Your task to perform on an android device: Open Yahoo.com Image 0: 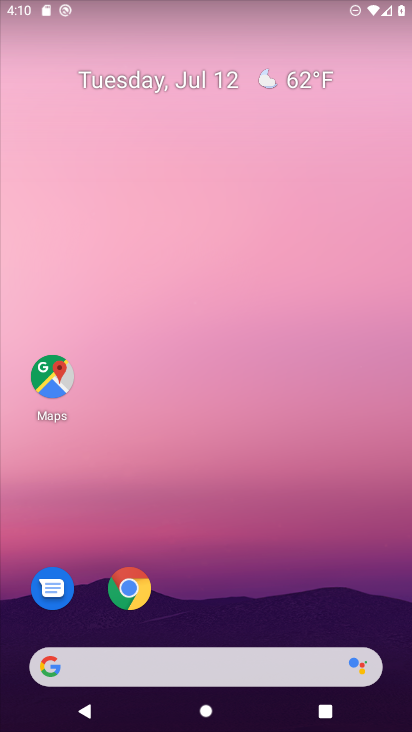
Step 0: click (343, 391)
Your task to perform on an android device: Open Yahoo.com Image 1: 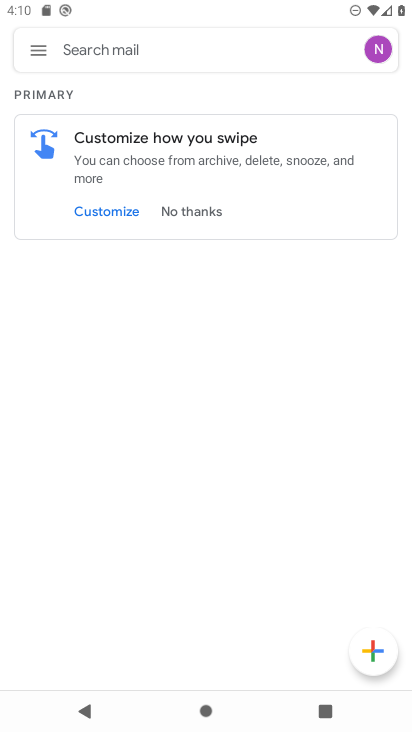
Step 1: press home button
Your task to perform on an android device: Open Yahoo.com Image 2: 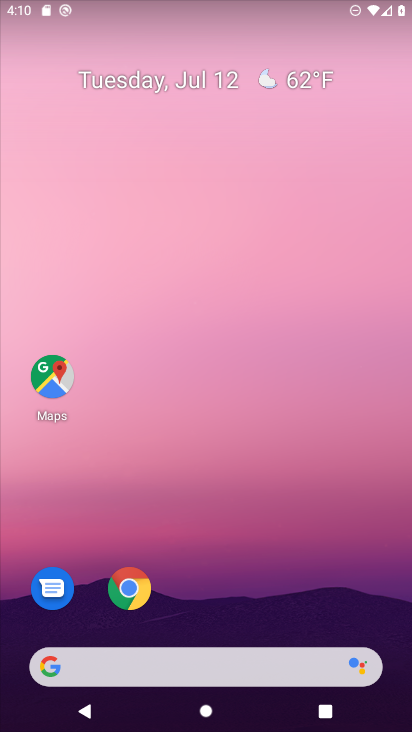
Step 2: click (136, 598)
Your task to perform on an android device: Open Yahoo.com Image 3: 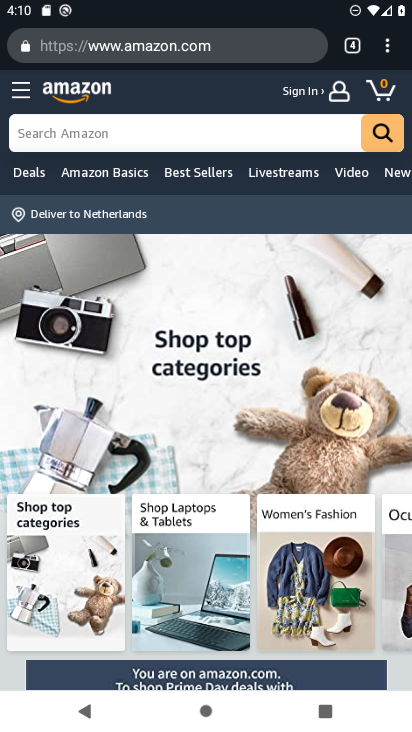
Step 3: click (227, 49)
Your task to perform on an android device: Open Yahoo.com Image 4: 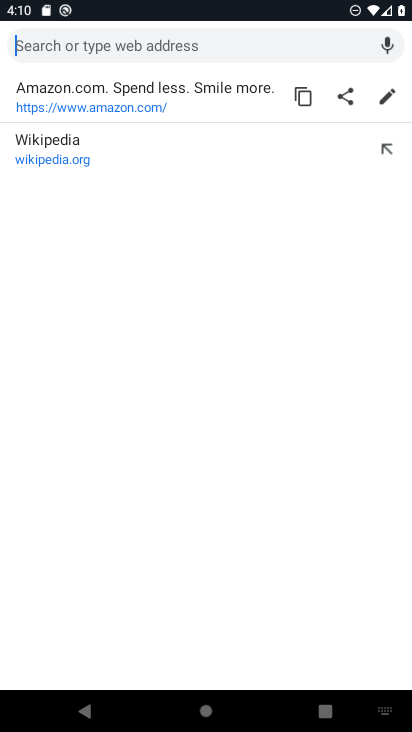
Step 4: type "yahoo.com"
Your task to perform on an android device: Open Yahoo.com Image 5: 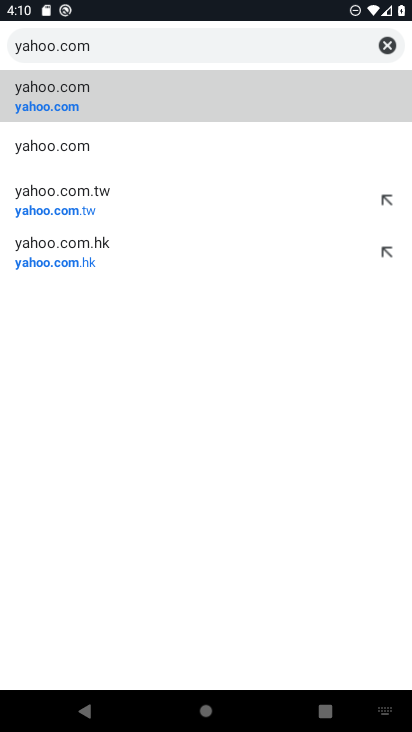
Step 5: click (111, 95)
Your task to perform on an android device: Open Yahoo.com Image 6: 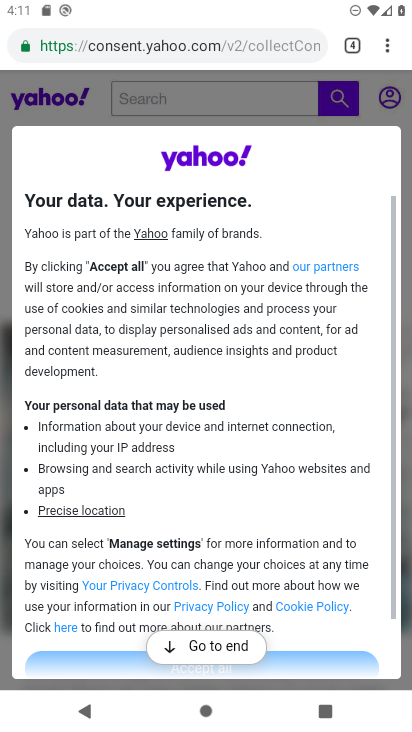
Step 6: task complete